Your task to perform on an android device: turn on priority inbox in the gmail app Image 0: 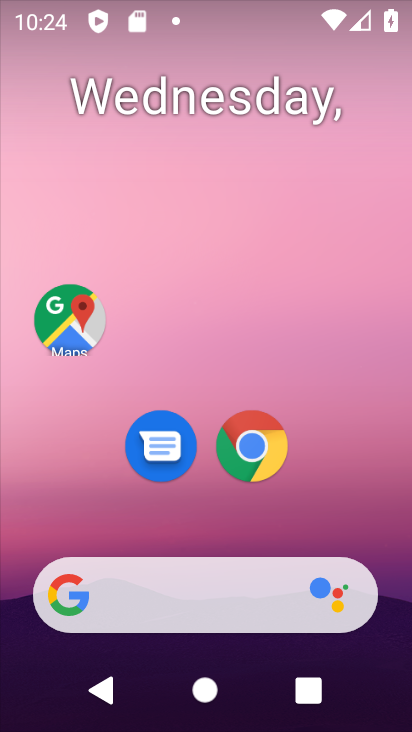
Step 0: drag from (79, 530) to (158, 148)
Your task to perform on an android device: turn on priority inbox in the gmail app Image 1: 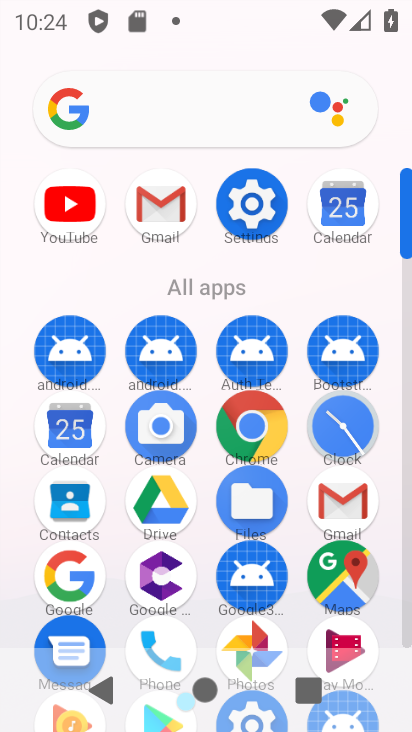
Step 1: click (344, 494)
Your task to perform on an android device: turn on priority inbox in the gmail app Image 2: 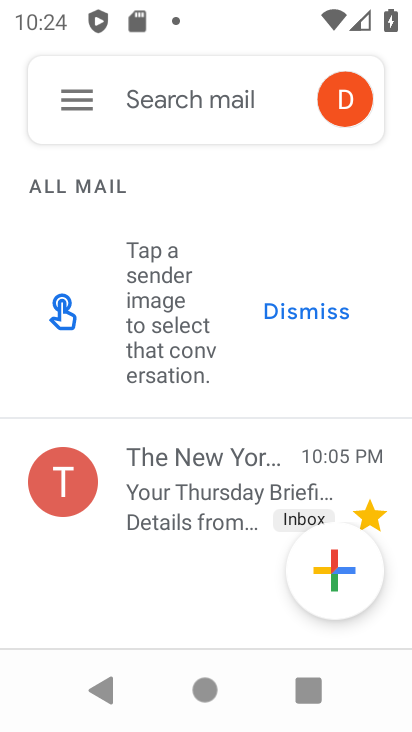
Step 2: click (92, 107)
Your task to perform on an android device: turn on priority inbox in the gmail app Image 3: 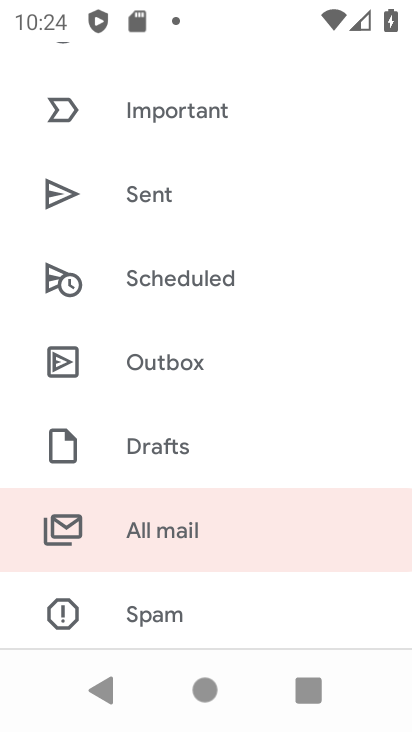
Step 3: drag from (148, 590) to (306, 48)
Your task to perform on an android device: turn on priority inbox in the gmail app Image 4: 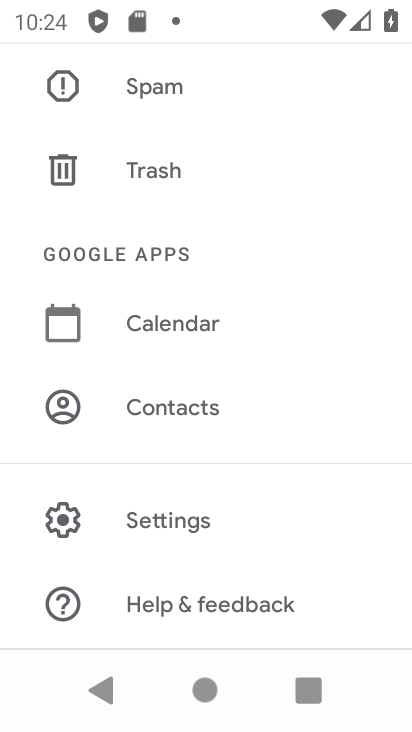
Step 4: click (182, 529)
Your task to perform on an android device: turn on priority inbox in the gmail app Image 5: 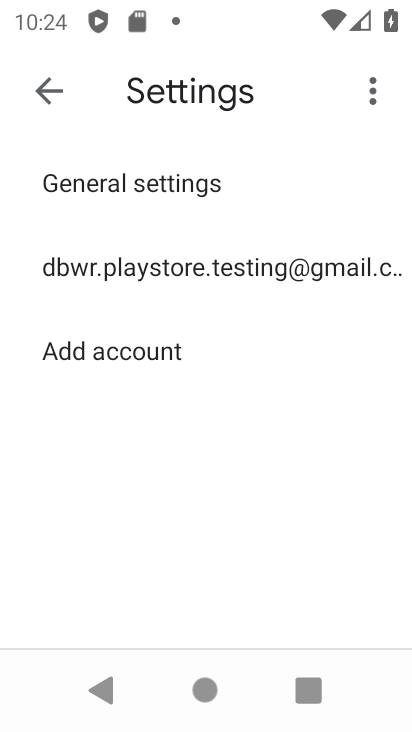
Step 5: click (283, 273)
Your task to perform on an android device: turn on priority inbox in the gmail app Image 6: 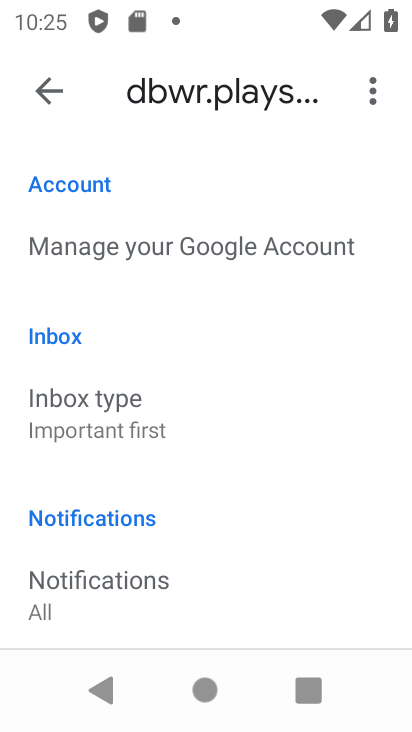
Step 6: click (177, 422)
Your task to perform on an android device: turn on priority inbox in the gmail app Image 7: 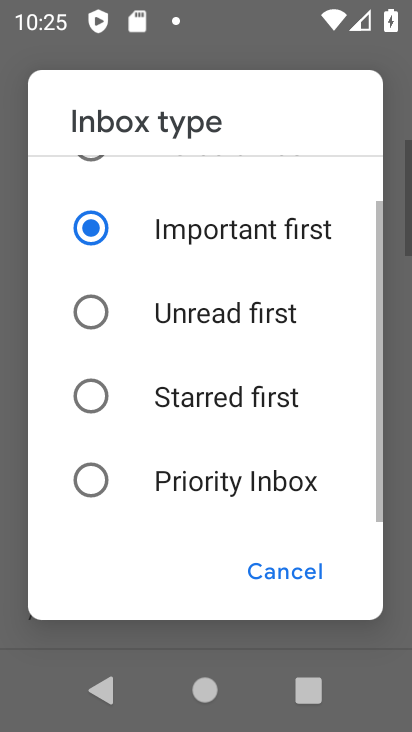
Step 7: click (231, 490)
Your task to perform on an android device: turn on priority inbox in the gmail app Image 8: 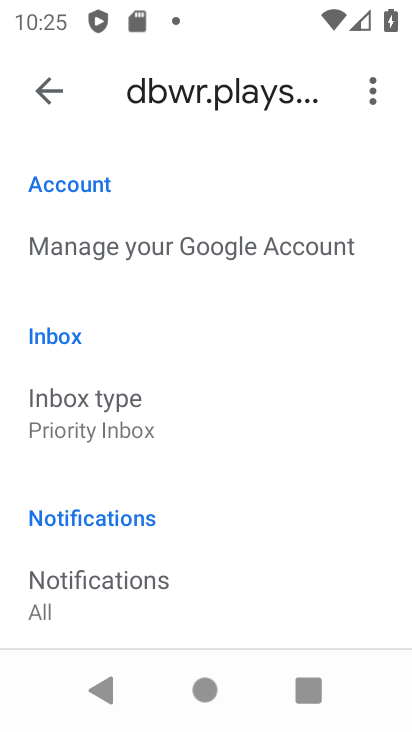
Step 8: task complete